Your task to perform on an android device: toggle pop-ups in chrome Image 0: 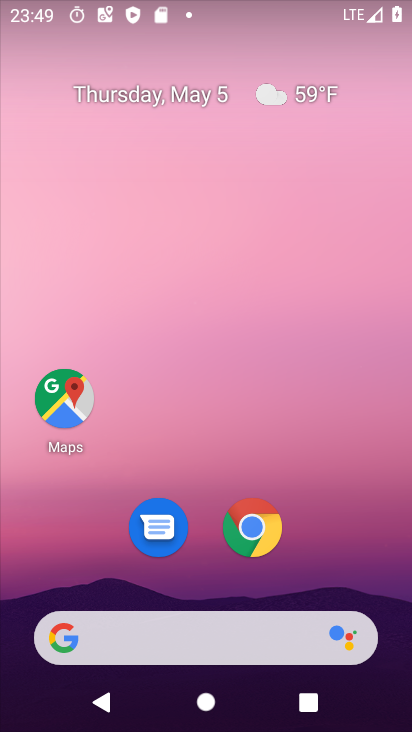
Step 0: click (250, 529)
Your task to perform on an android device: toggle pop-ups in chrome Image 1: 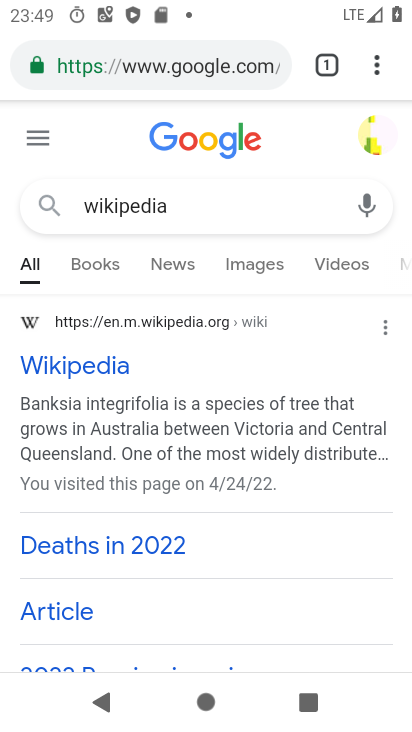
Step 1: click (369, 70)
Your task to perform on an android device: toggle pop-ups in chrome Image 2: 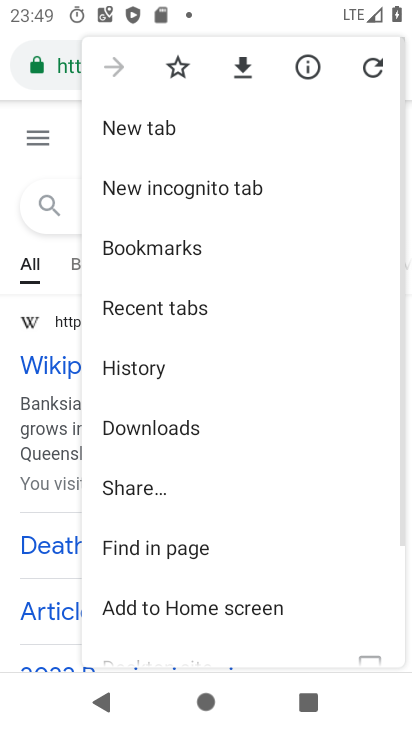
Step 2: drag from (191, 552) to (256, 176)
Your task to perform on an android device: toggle pop-ups in chrome Image 3: 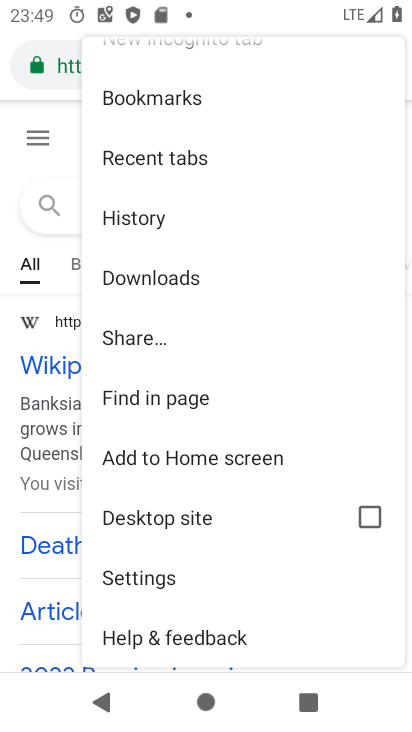
Step 3: click (169, 577)
Your task to perform on an android device: toggle pop-ups in chrome Image 4: 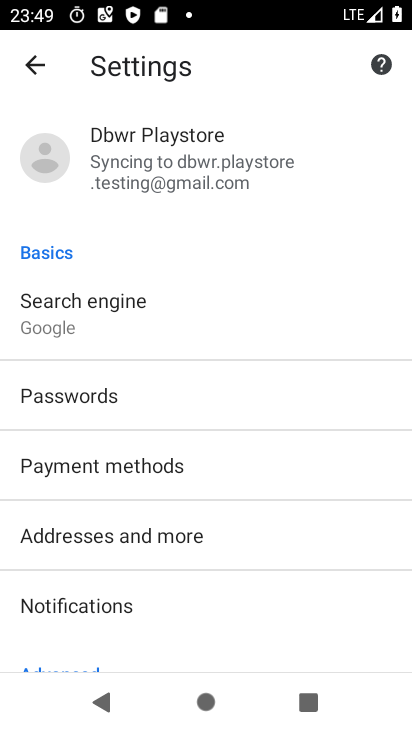
Step 4: drag from (137, 510) to (193, 181)
Your task to perform on an android device: toggle pop-ups in chrome Image 5: 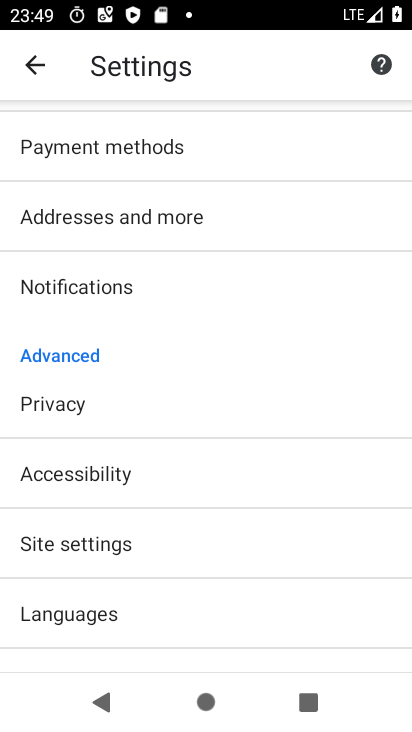
Step 5: click (102, 540)
Your task to perform on an android device: toggle pop-ups in chrome Image 6: 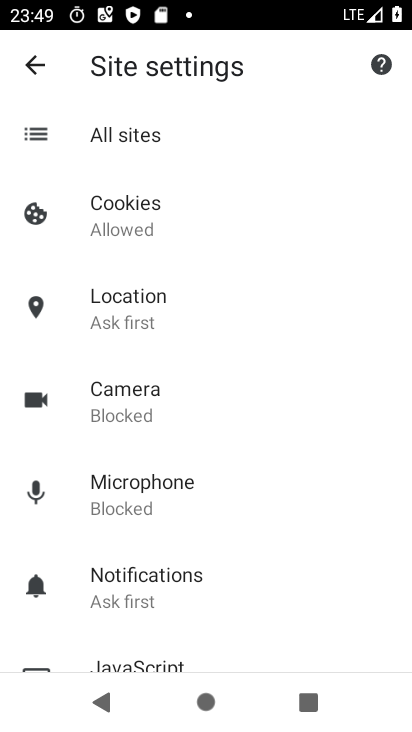
Step 6: drag from (152, 544) to (196, 235)
Your task to perform on an android device: toggle pop-ups in chrome Image 7: 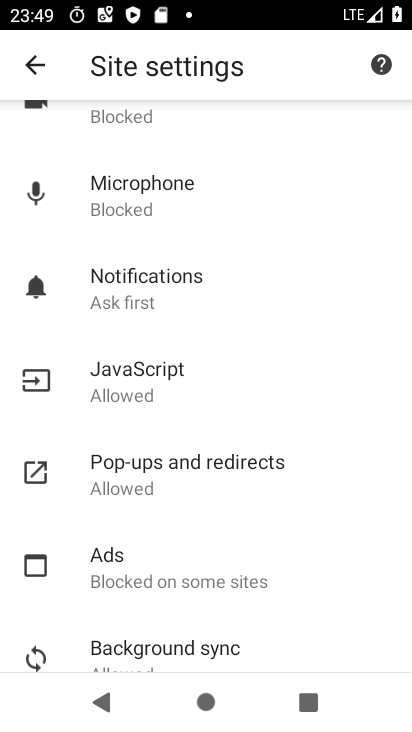
Step 7: drag from (136, 585) to (194, 219)
Your task to perform on an android device: toggle pop-ups in chrome Image 8: 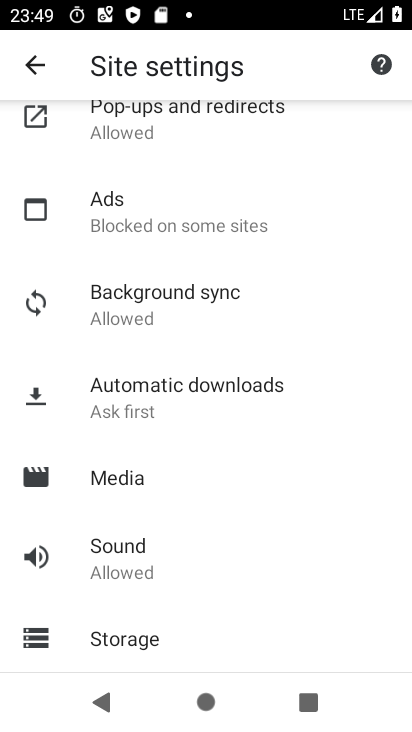
Step 8: drag from (168, 302) to (172, 698)
Your task to perform on an android device: toggle pop-ups in chrome Image 9: 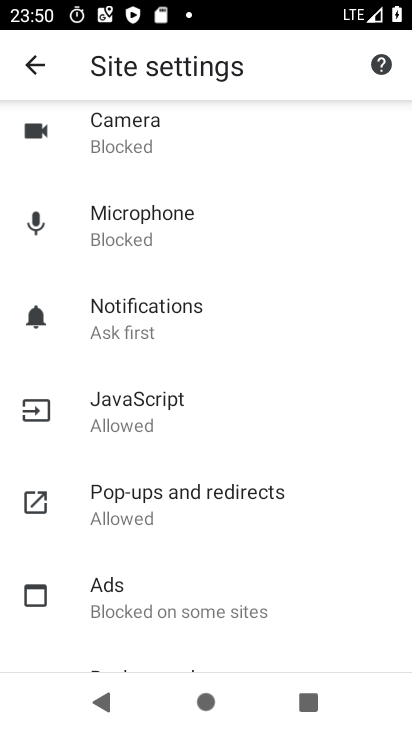
Step 9: click (190, 510)
Your task to perform on an android device: toggle pop-ups in chrome Image 10: 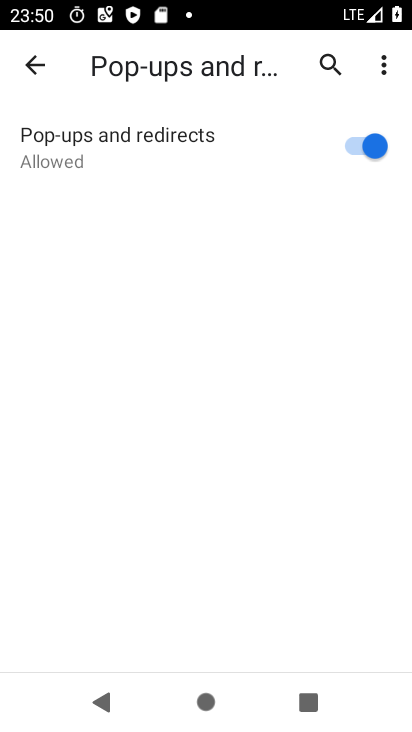
Step 10: click (351, 144)
Your task to perform on an android device: toggle pop-ups in chrome Image 11: 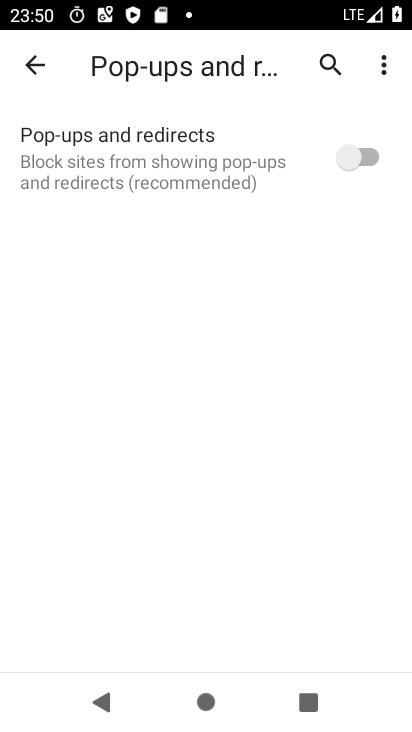
Step 11: task complete